Your task to perform on an android device: add a contact Image 0: 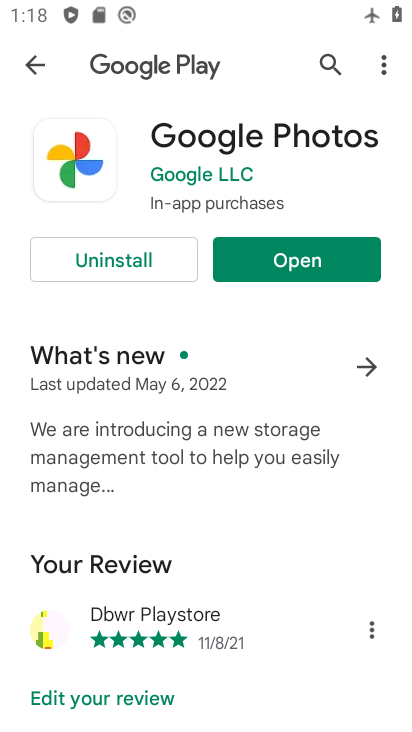
Step 0: press home button
Your task to perform on an android device: add a contact Image 1: 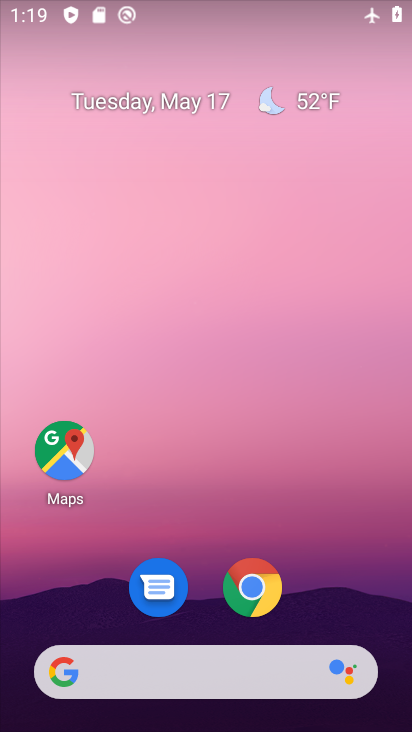
Step 1: drag from (311, 596) to (311, 56)
Your task to perform on an android device: add a contact Image 2: 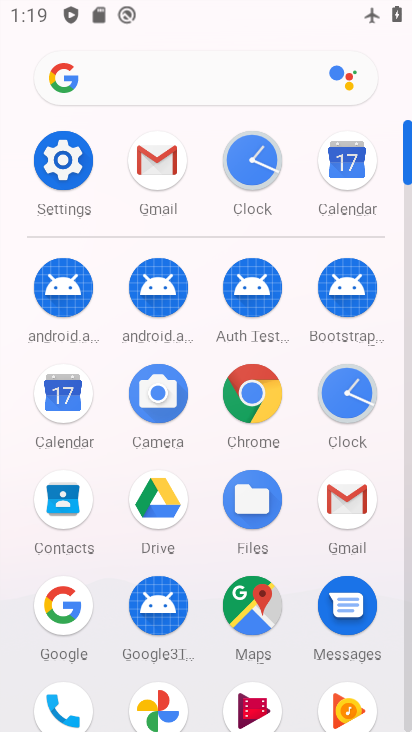
Step 2: click (65, 520)
Your task to perform on an android device: add a contact Image 3: 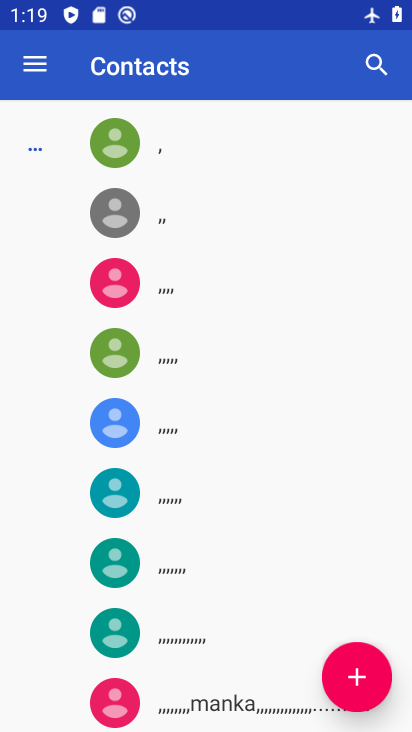
Step 3: click (346, 677)
Your task to perform on an android device: add a contact Image 4: 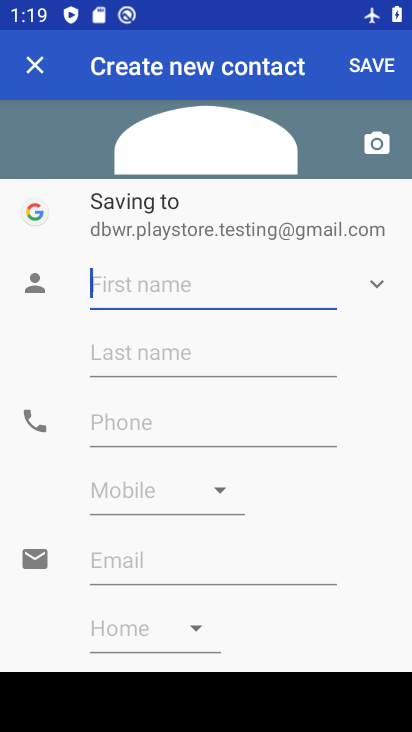
Step 4: type "sdaewd"
Your task to perform on an android device: add a contact Image 5: 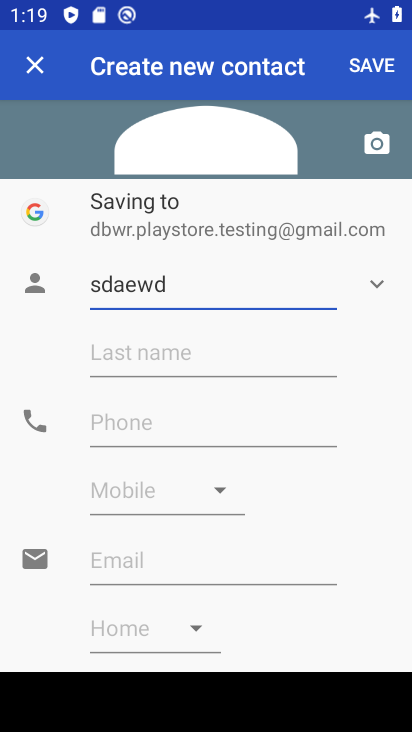
Step 5: click (254, 344)
Your task to perform on an android device: add a contact Image 6: 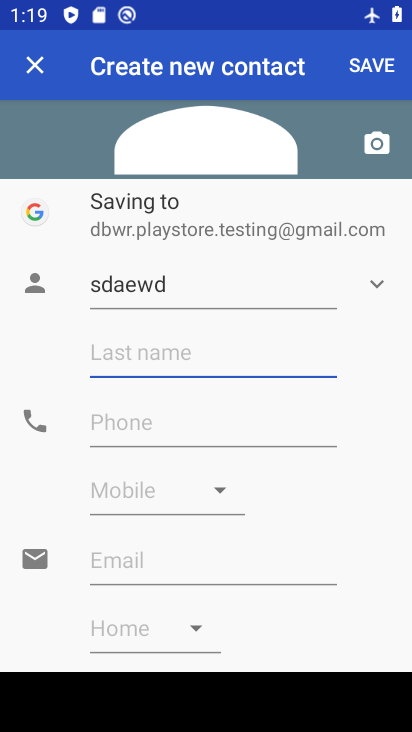
Step 6: type "sdds"
Your task to perform on an android device: add a contact Image 7: 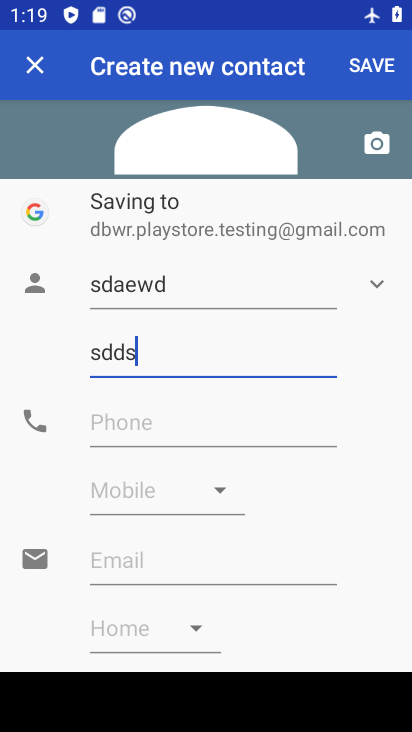
Step 7: click (184, 437)
Your task to perform on an android device: add a contact Image 8: 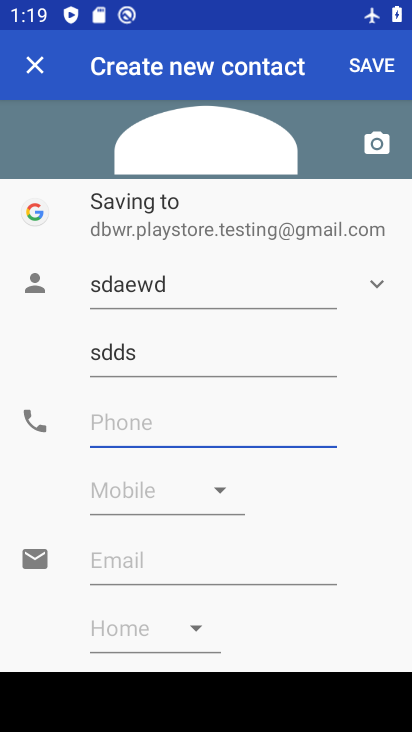
Step 8: type "3243523534"
Your task to perform on an android device: add a contact Image 9: 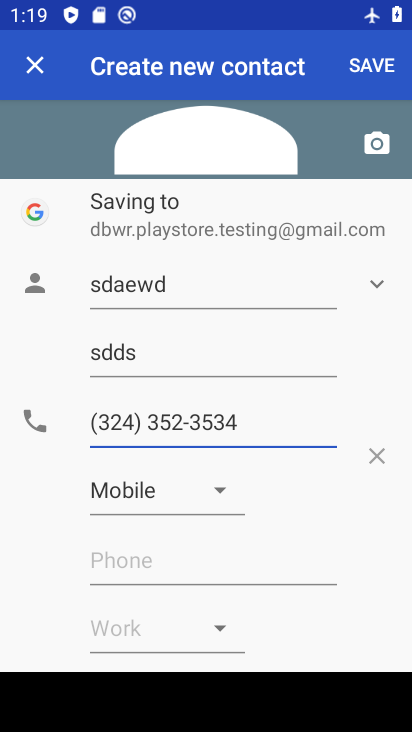
Step 9: click (375, 50)
Your task to perform on an android device: add a contact Image 10: 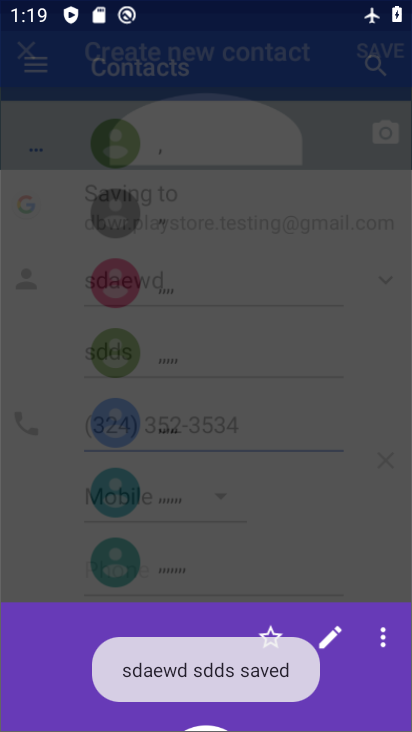
Step 10: task complete